Your task to perform on an android device: find snoozed emails in the gmail app Image 0: 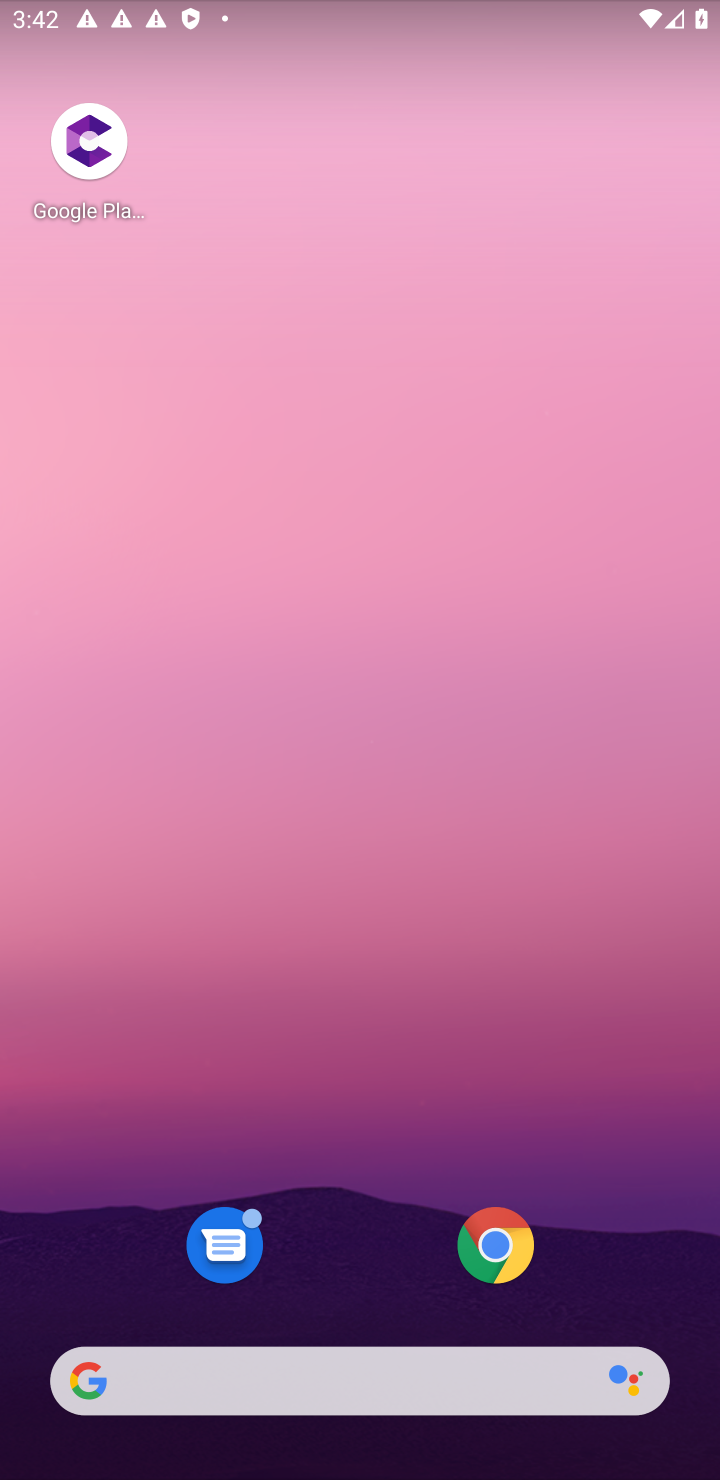
Step 0: drag from (26, 1428) to (288, 596)
Your task to perform on an android device: find snoozed emails in the gmail app Image 1: 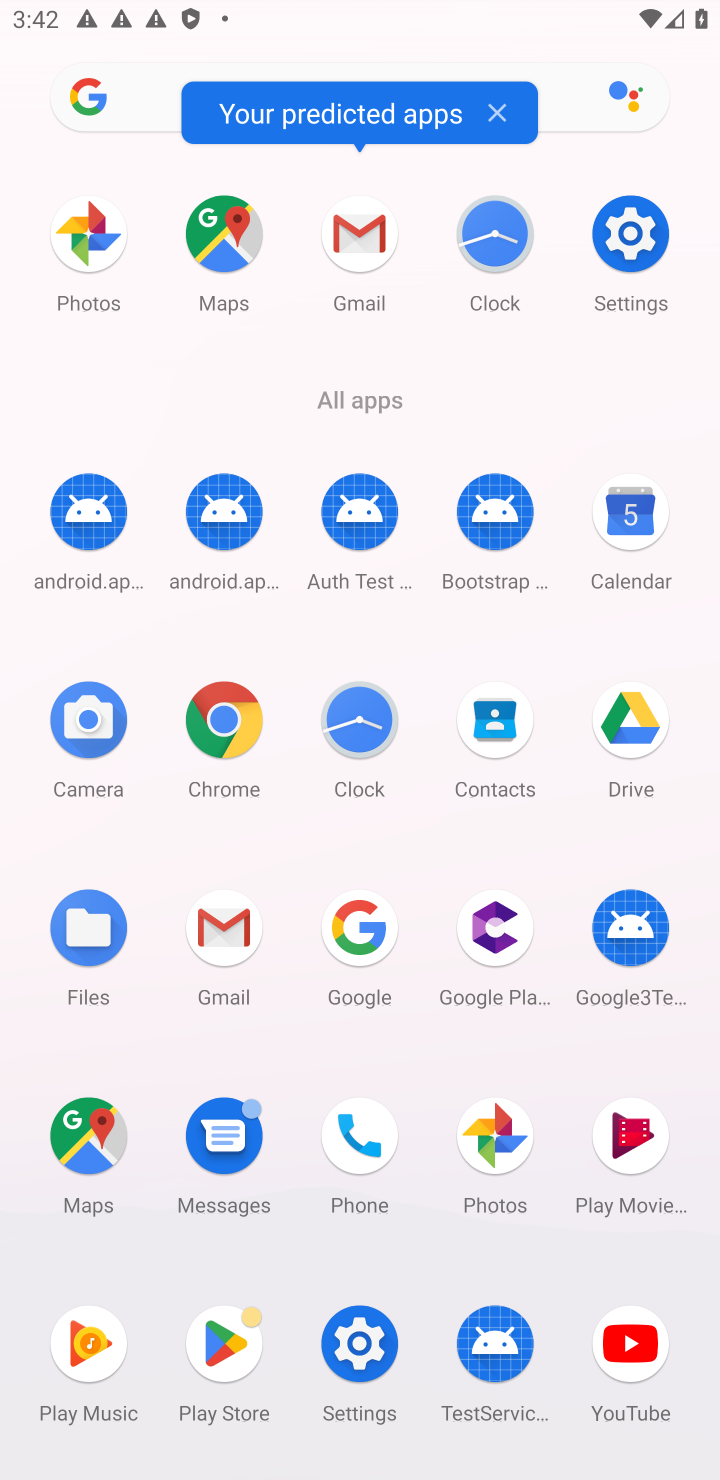
Step 1: click (248, 938)
Your task to perform on an android device: find snoozed emails in the gmail app Image 2: 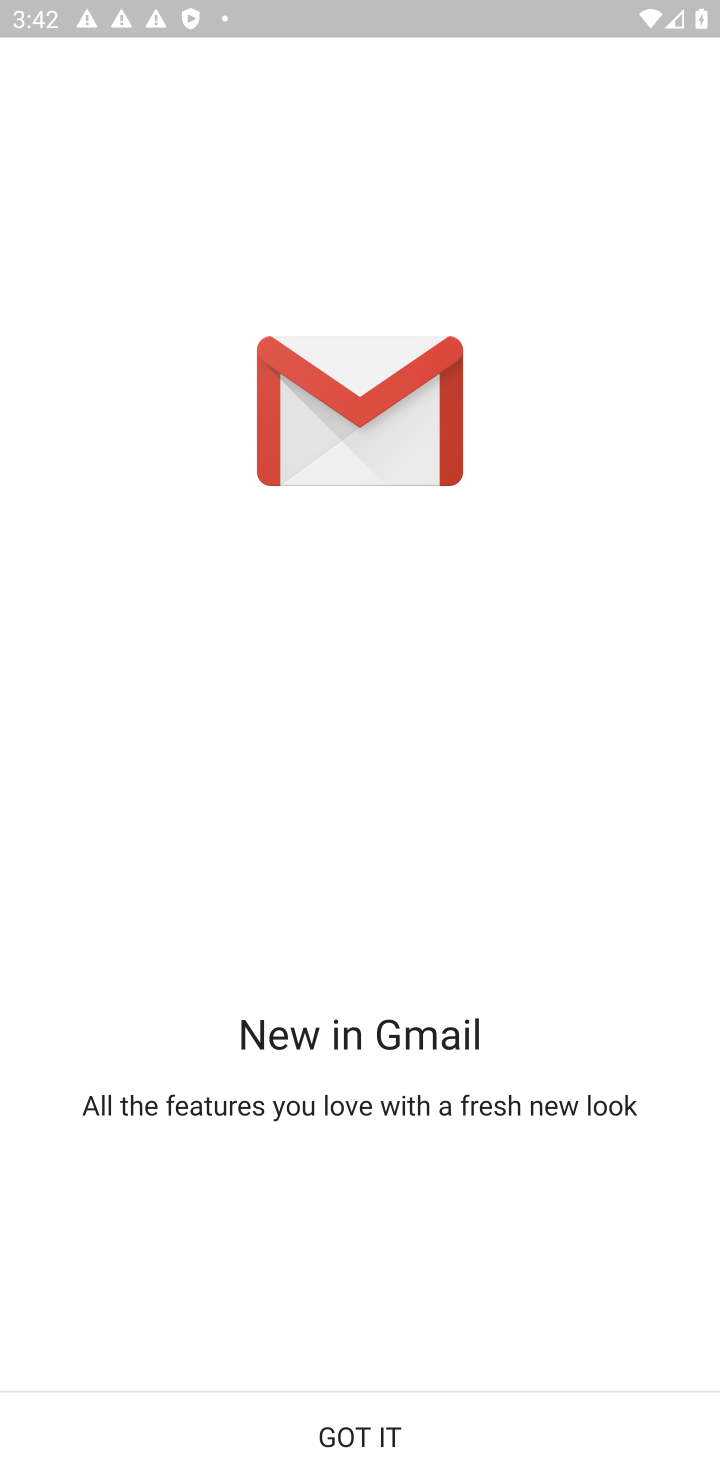
Step 2: click (398, 1436)
Your task to perform on an android device: find snoozed emails in the gmail app Image 3: 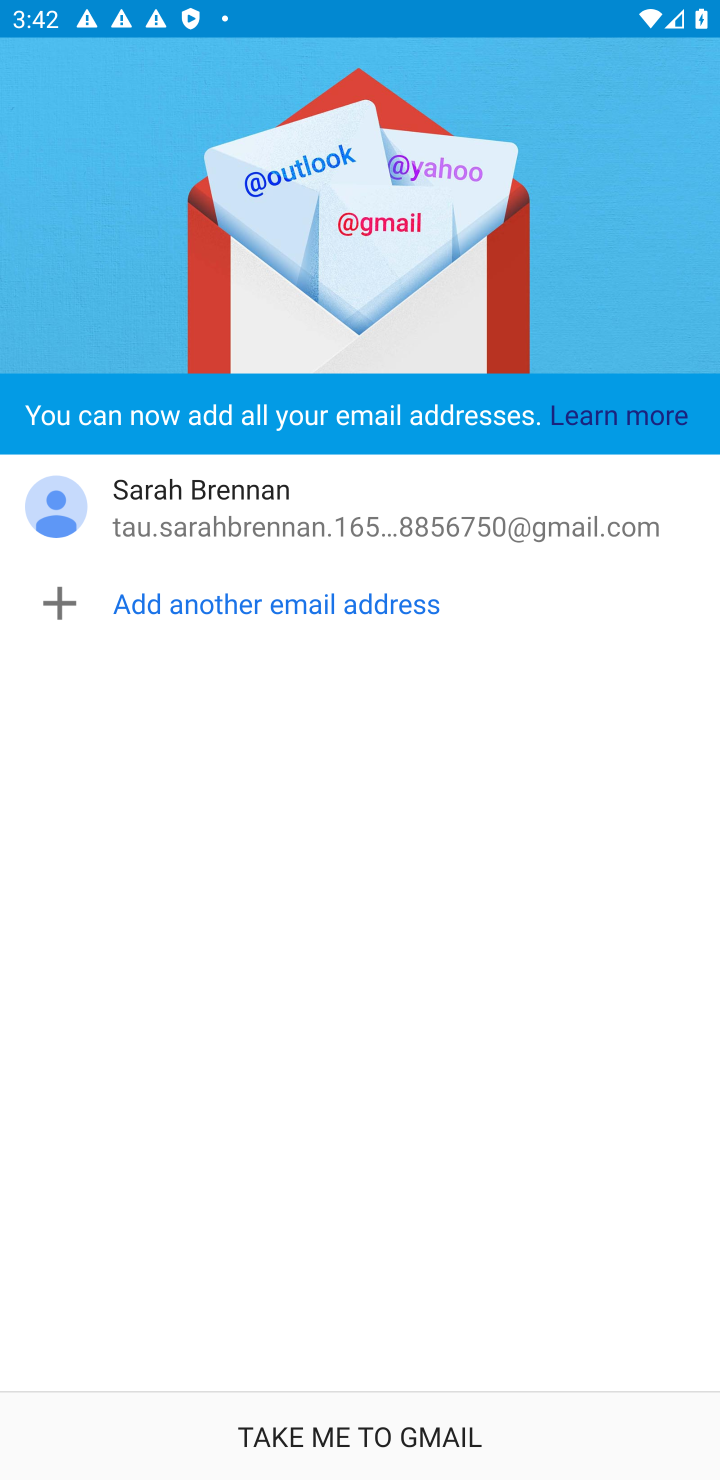
Step 3: click (398, 1436)
Your task to perform on an android device: find snoozed emails in the gmail app Image 4: 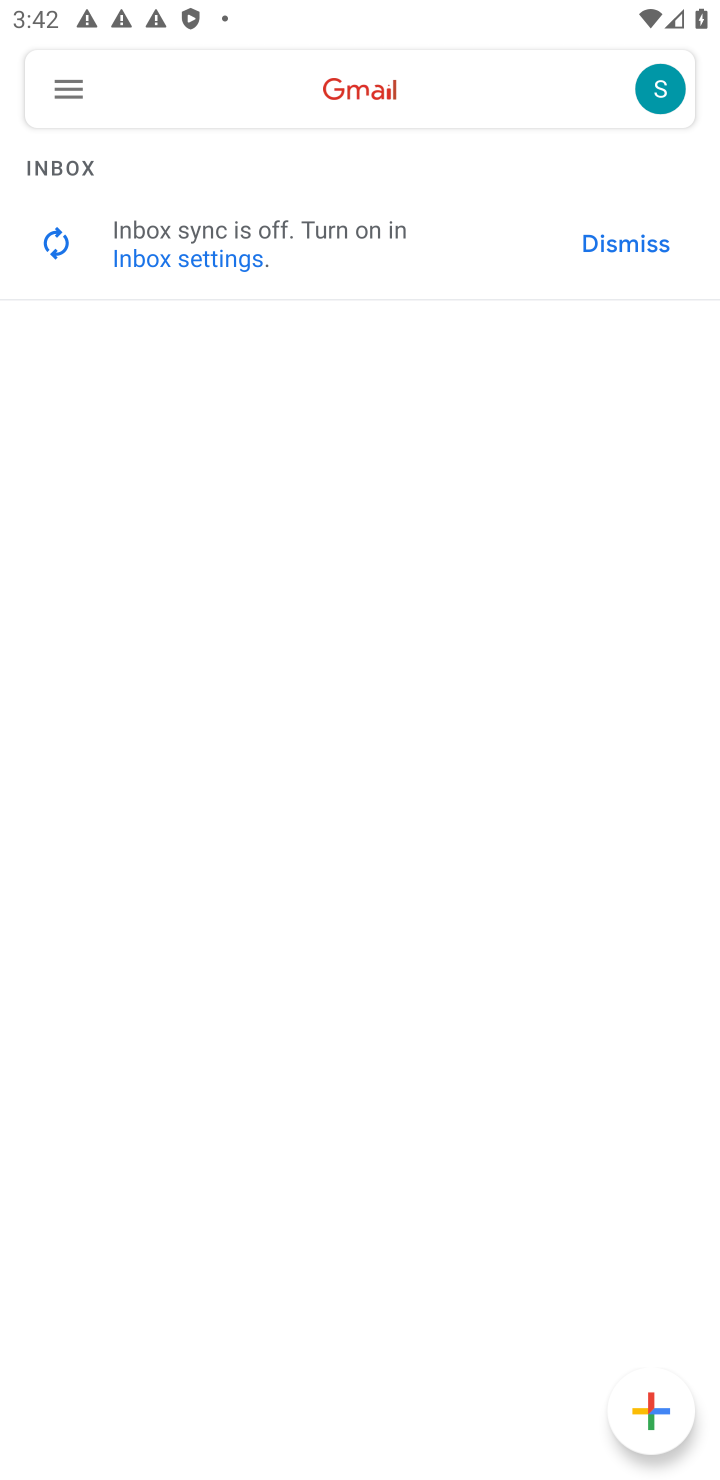
Step 4: click (53, 69)
Your task to perform on an android device: find snoozed emails in the gmail app Image 5: 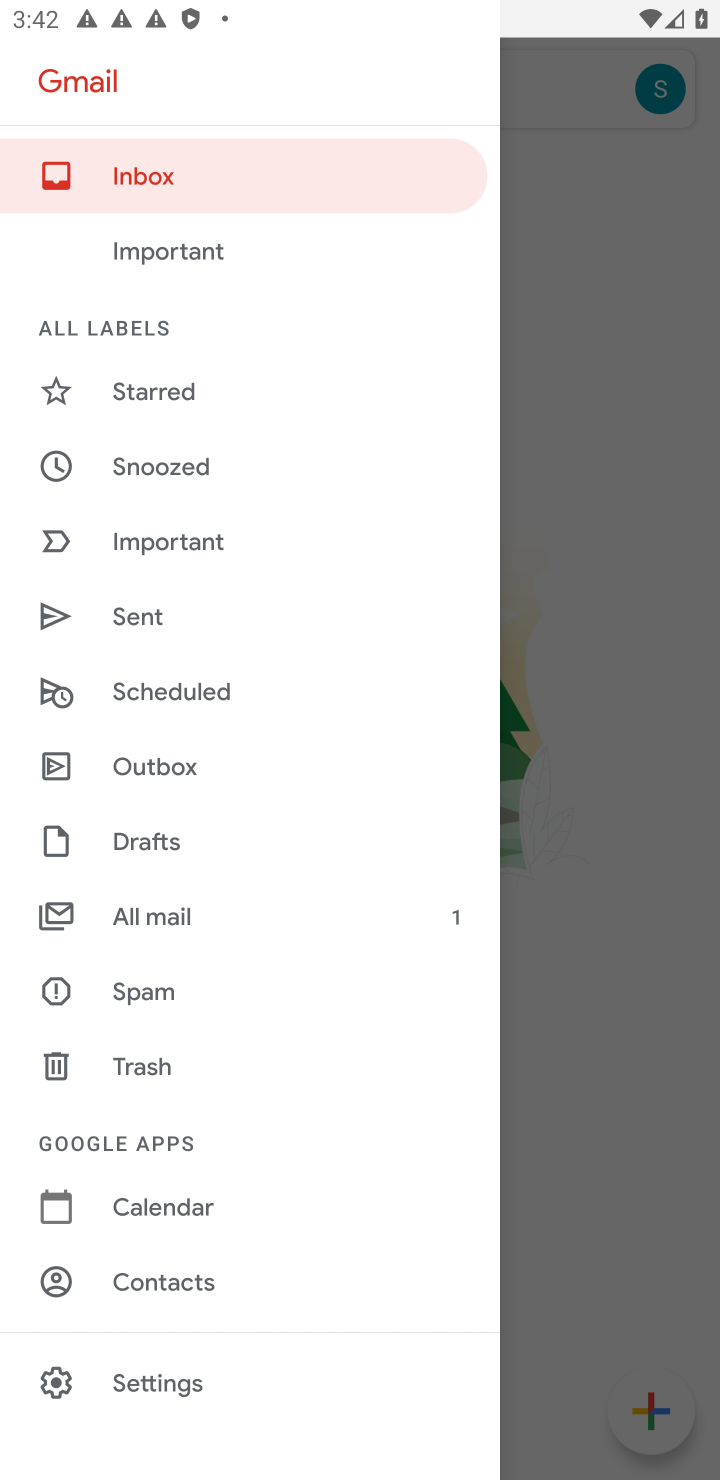
Step 5: click (174, 476)
Your task to perform on an android device: find snoozed emails in the gmail app Image 6: 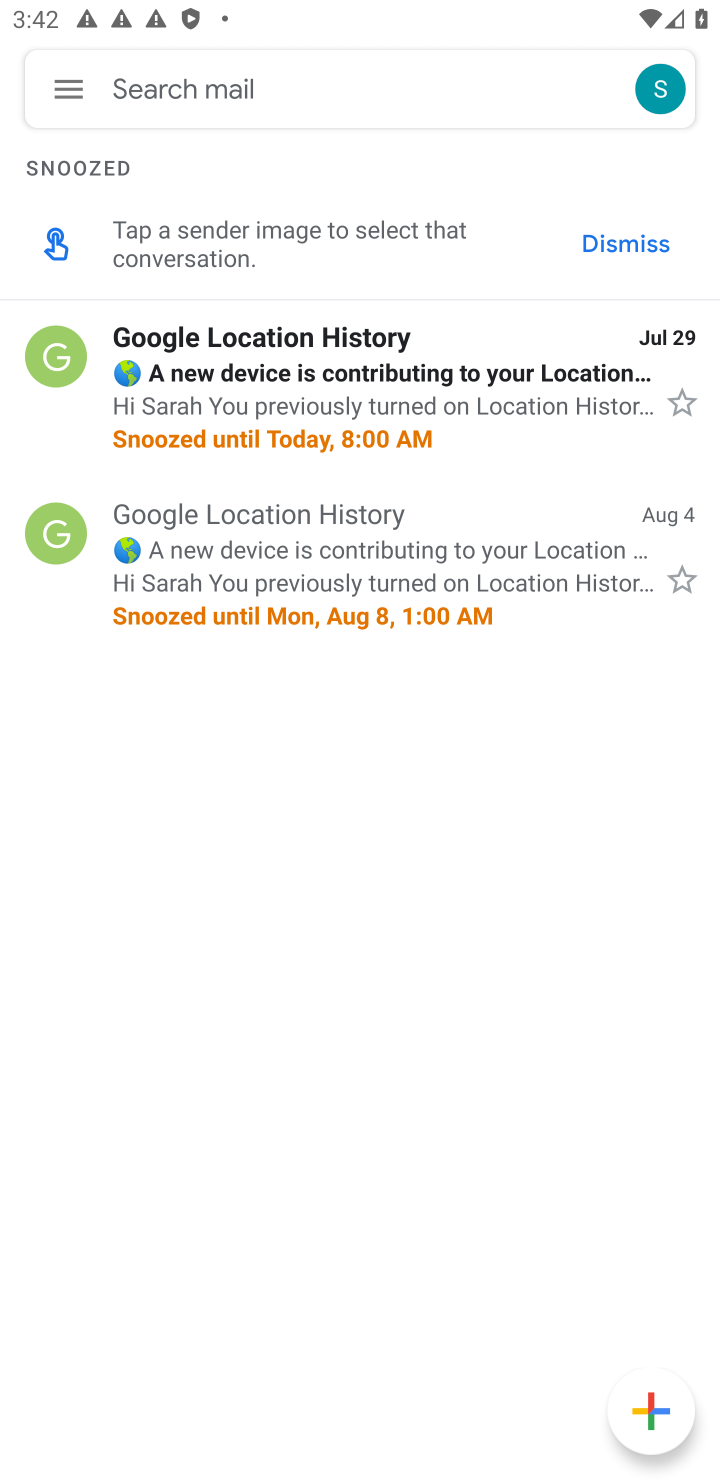
Step 6: task complete